Your task to perform on an android device: toggle priority inbox in the gmail app Image 0: 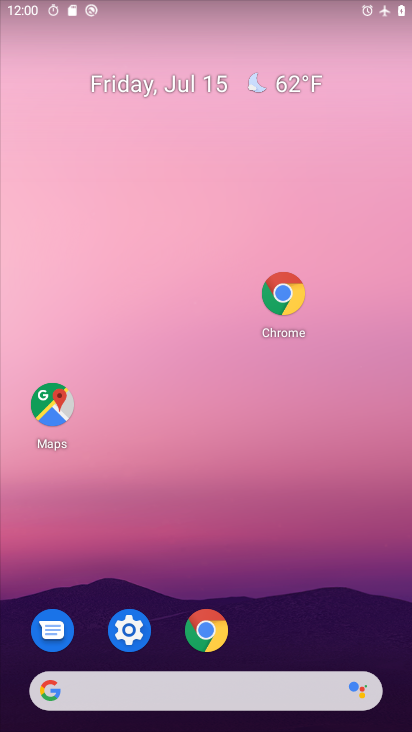
Step 0: drag from (239, 413) to (173, 88)
Your task to perform on an android device: toggle priority inbox in the gmail app Image 1: 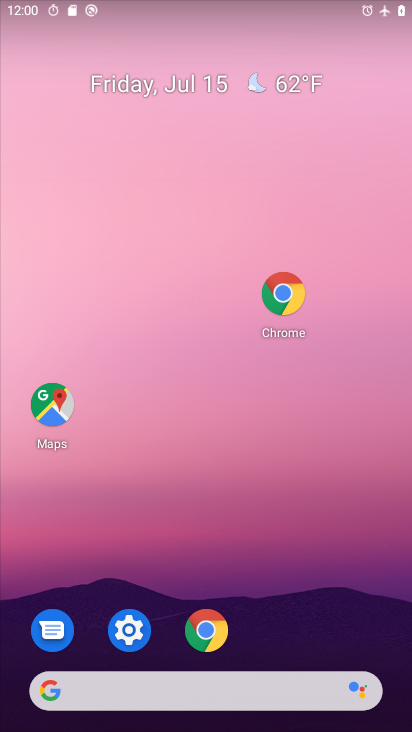
Step 1: drag from (218, 599) to (143, 91)
Your task to perform on an android device: toggle priority inbox in the gmail app Image 2: 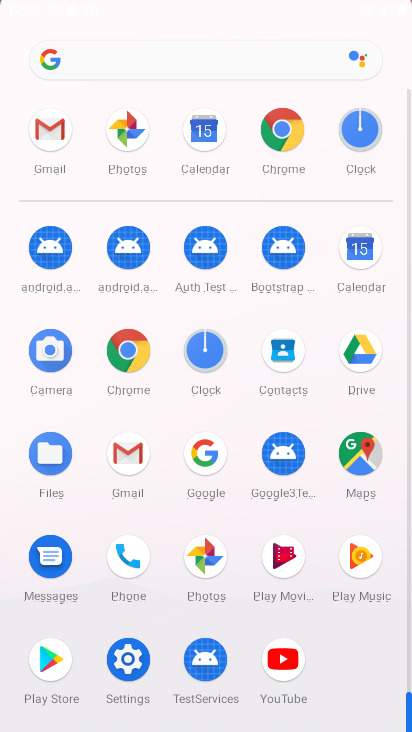
Step 2: drag from (220, 582) to (183, 62)
Your task to perform on an android device: toggle priority inbox in the gmail app Image 3: 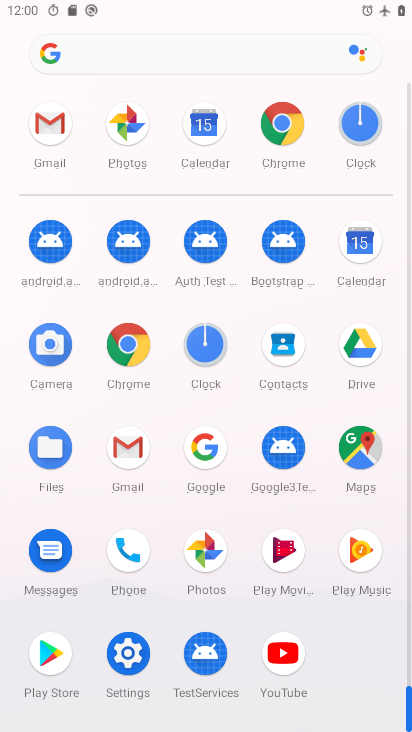
Step 3: click (129, 436)
Your task to perform on an android device: toggle priority inbox in the gmail app Image 4: 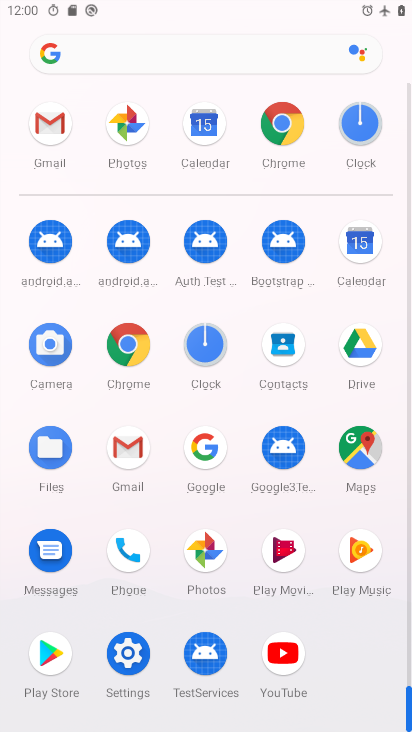
Step 4: click (122, 448)
Your task to perform on an android device: toggle priority inbox in the gmail app Image 5: 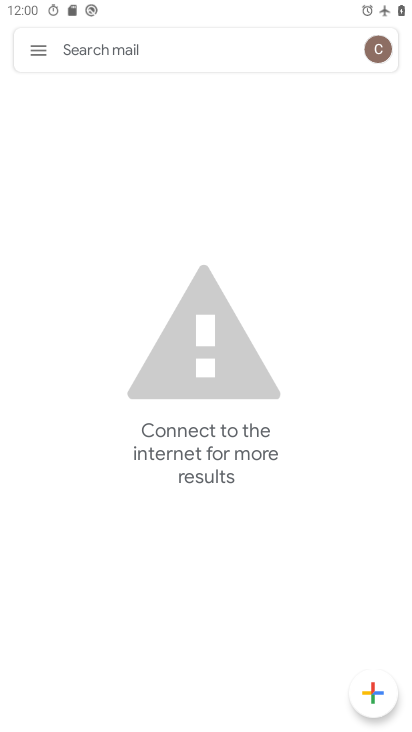
Step 5: click (29, 51)
Your task to perform on an android device: toggle priority inbox in the gmail app Image 6: 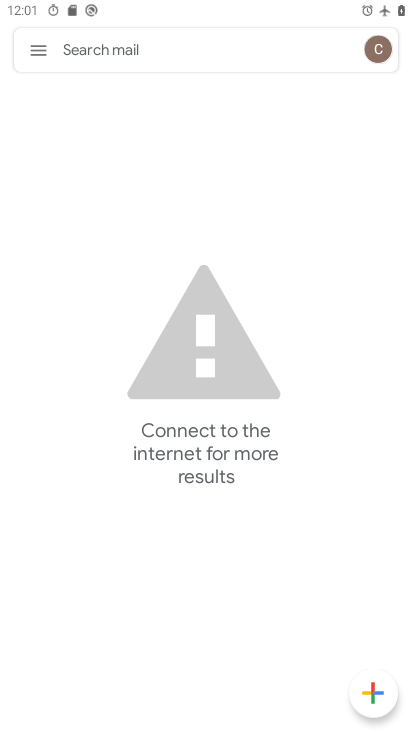
Step 6: click (40, 54)
Your task to perform on an android device: toggle priority inbox in the gmail app Image 7: 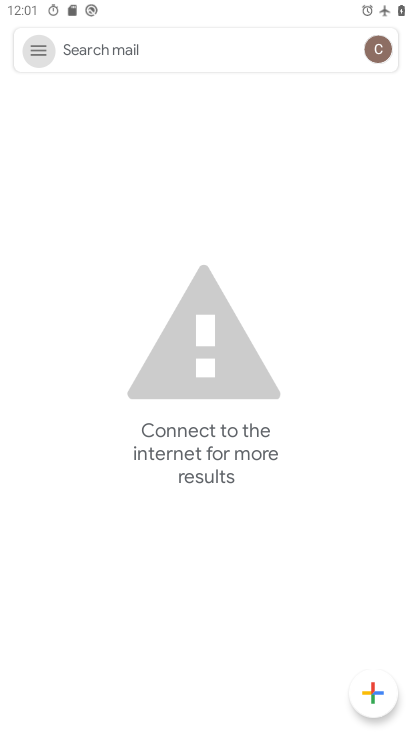
Step 7: click (40, 54)
Your task to perform on an android device: toggle priority inbox in the gmail app Image 8: 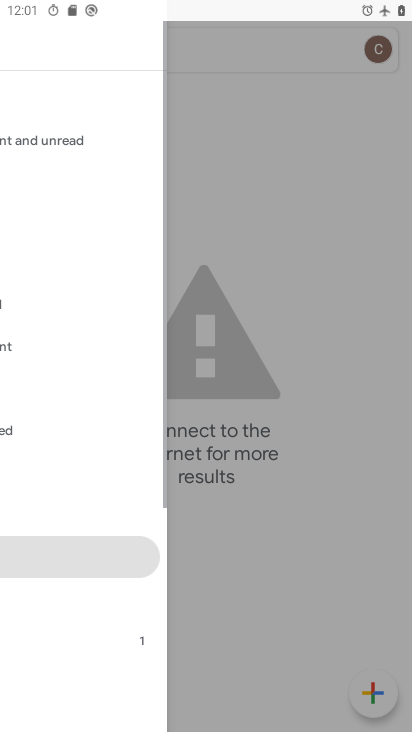
Step 8: click (40, 54)
Your task to perform on an android device: toggle priority inbox in the gmail app Image 9: 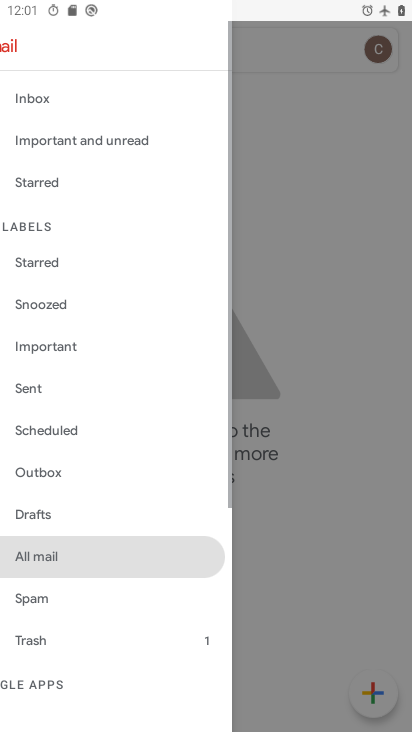
Step 9: click (40, 53)
Your task to perform on an android device: toggle priority inbox in the gmail app Image 10: 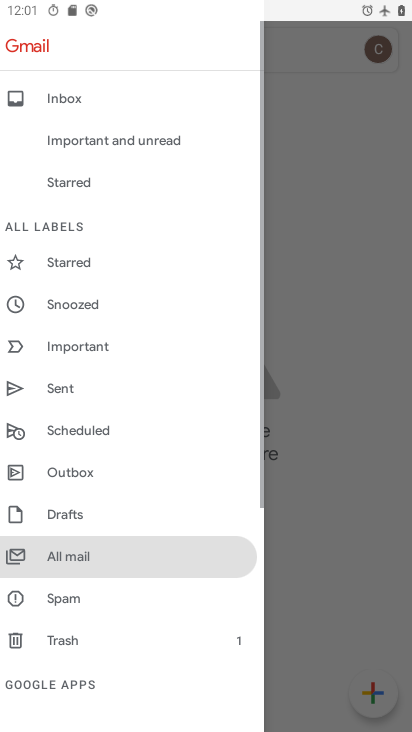
Step 10: click (41, 52)
Your task to perform on an android device: toggle priority inbox in the gmail app Image 11: 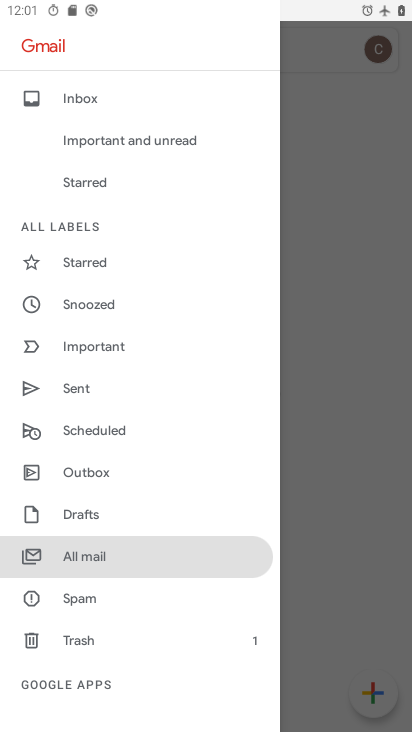
Step 11: drag from (94, 634) to (118, 287)
Your task to perform on an android device: toggle priority inbox in the gmail app Image 12: 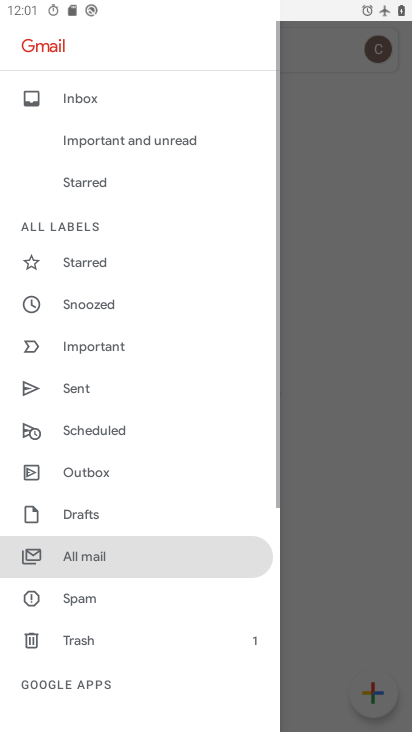
Step 12: drag from (147, 560) to (128, 271)
Your task to perform on an android device: toggle priority inbox in the gmail app Image 13: 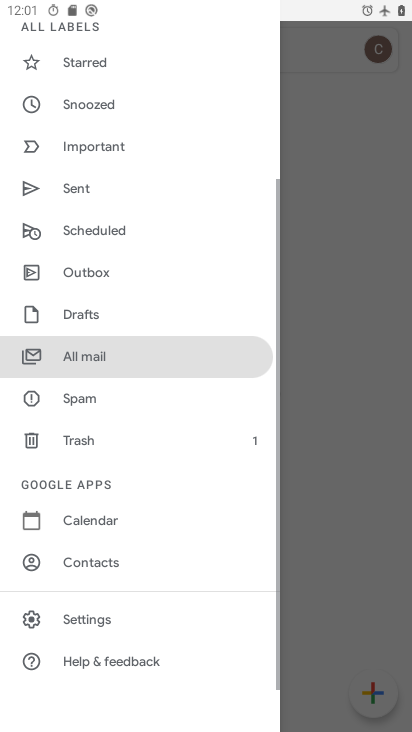
Step 13: click (82, 623)
Your task to perform on an android device: toggle priority inbox in the gmail app Image 14: 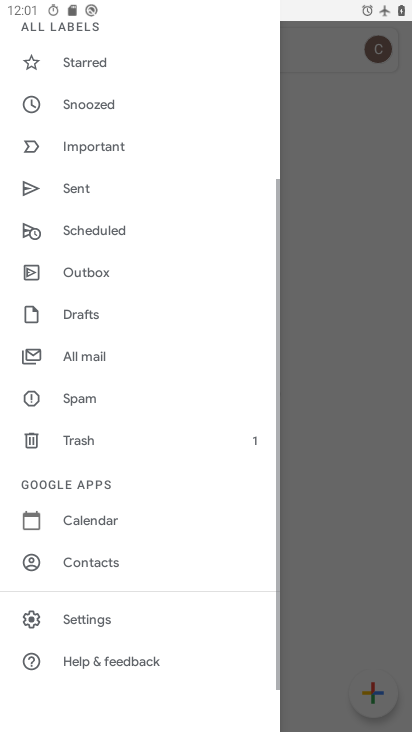
Step 14: click (86, 619)
Your task to perform on an android device: toggle priority inbox in the gmail app Image 15: 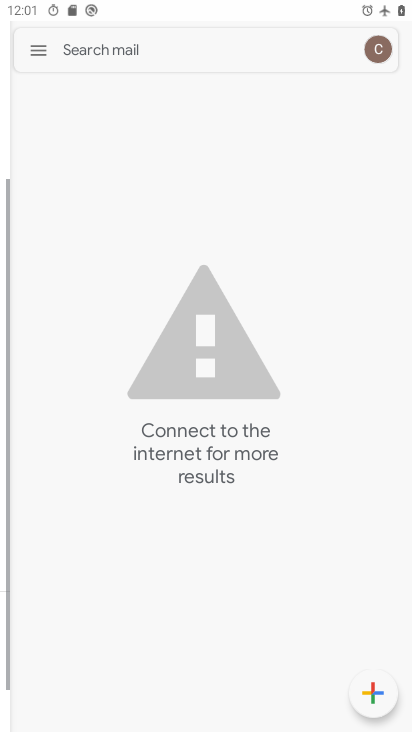
Step 15: click (88, 618)
Your task to perform on an android device: toggle priority inbox in the gmail app Image 16: 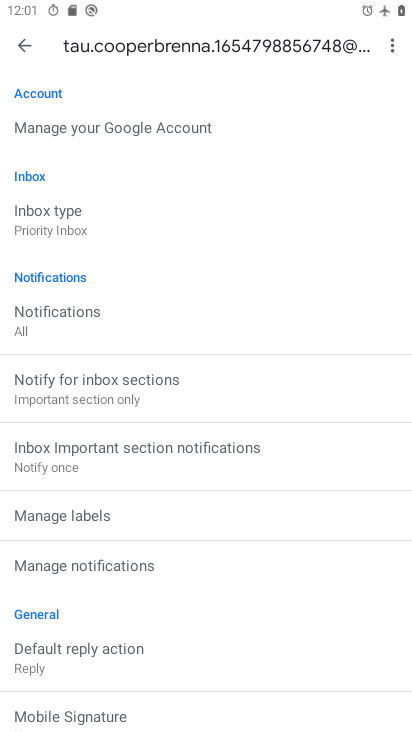
Step 16: click (49, 215)
Your task to perform on an android device: toggle priority inbox in the gmail app Image 17: 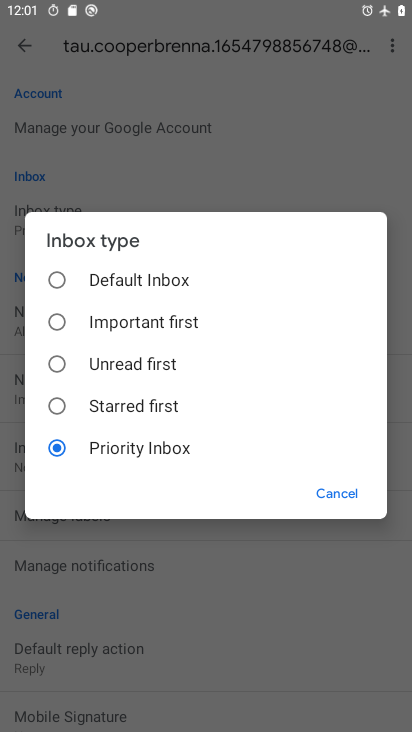
Step 17: click (341, 489)
Your task to perform on an android device: toggle priority inbox in the gmail app Image 18: 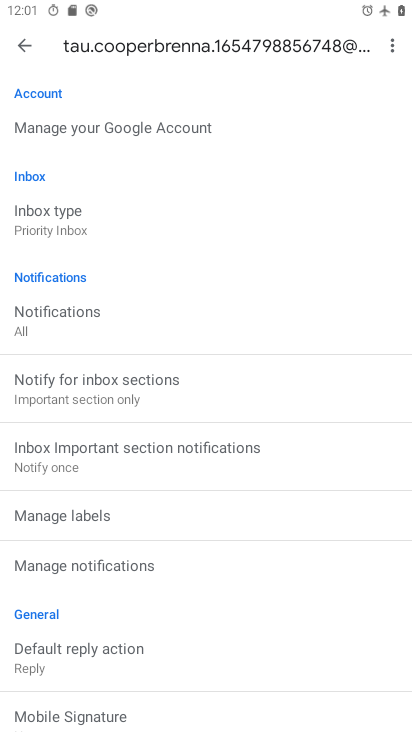
Step 18: task complete